Your task to perform on an android device: toggle pop-ups in chrome Image 0: 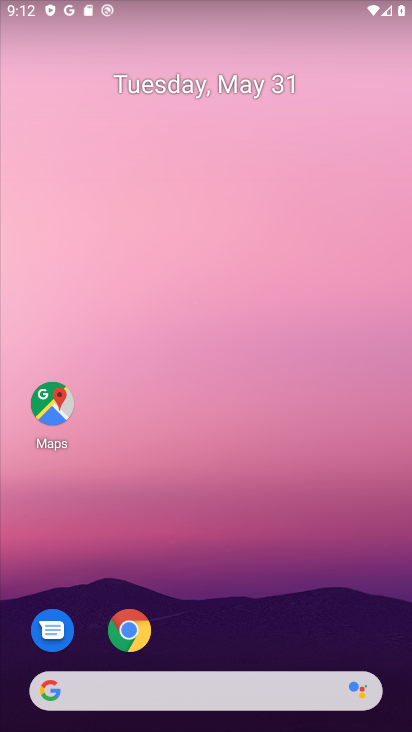
Step 0: click (133, 638)
Your task to perform on an android device: toggle pop-ups in chrome Image 1: 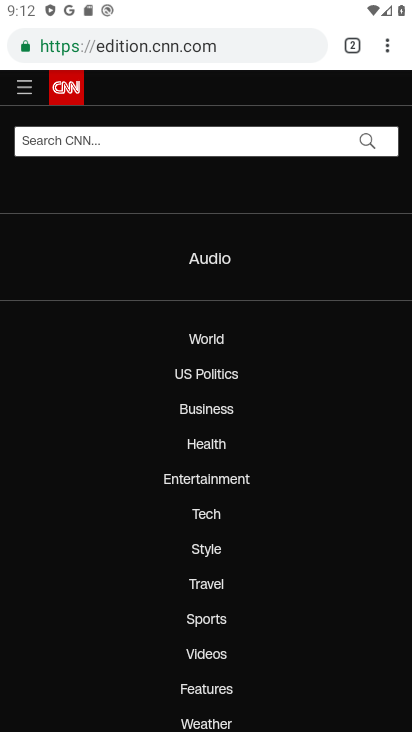
Step 1: click (388, 48)
Your task to perform on an android device: toggle pop-ups in chrome Image 2: 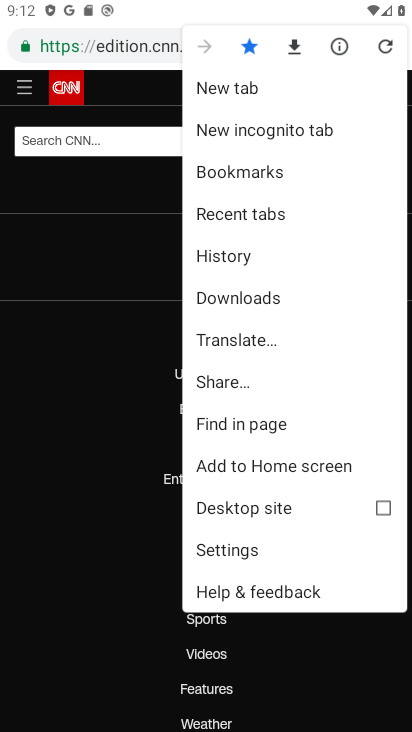
Step 2: click (248, 558)
Your task to perform on an android device: toggle pop-ups in chrome Image 3: 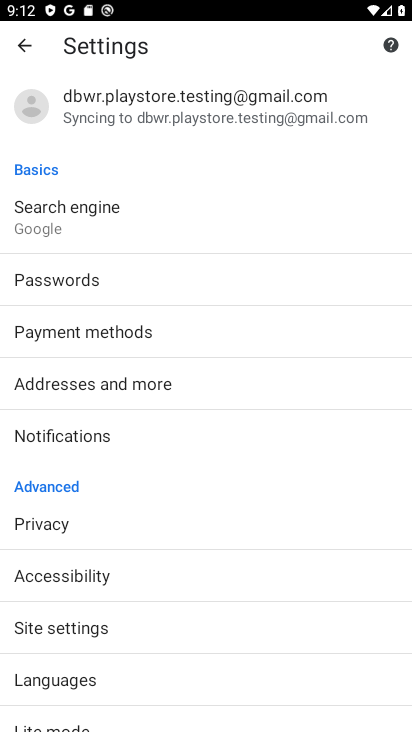
Step 3: drag from (173, 698) to (208, 378)
Your task to perform on an android device: toggle pop-ups in chrome Image 4: 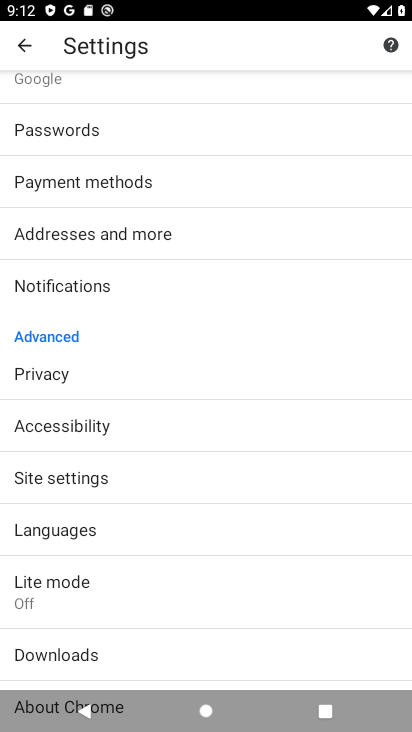
Step 4: click (77, 483)
Your task to perform on an android device: toggle pop-ups in chrome Image 5: 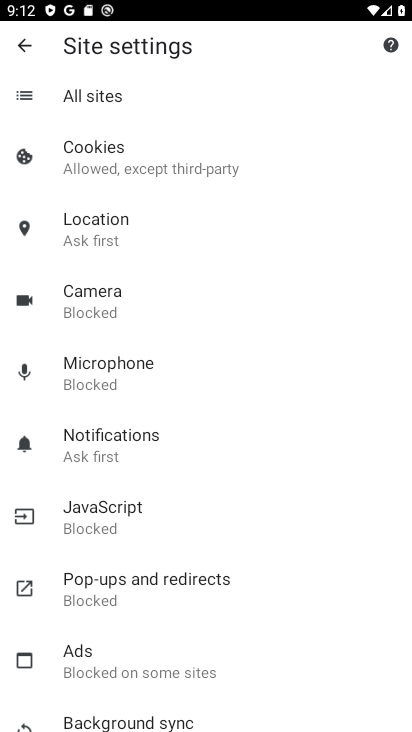
Step 5: click (121, 592)
Your task to perform on an android device: toggle pop-ups in chrome Image 6: 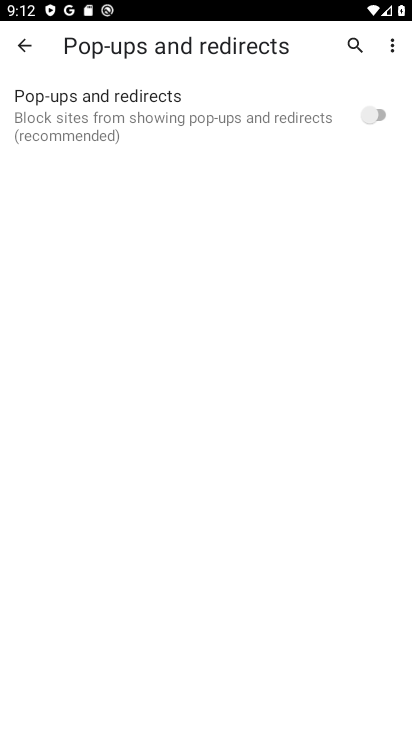
Step 6: click (375, 111)
Your task to perform on an android device: toggle pop-ups in chrome Image 7: 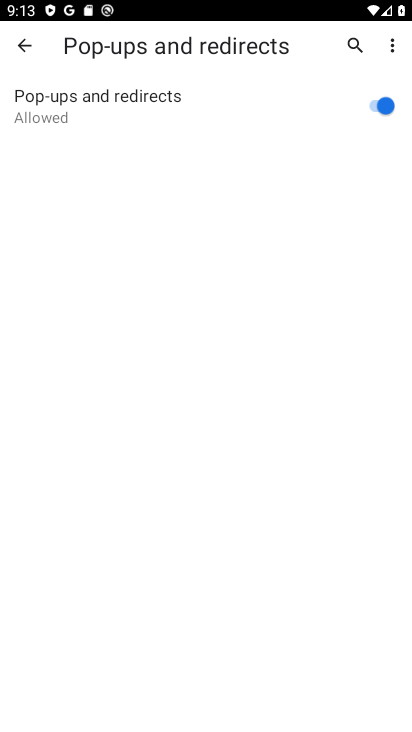
Step 7: task complete